Your task to perform on an android device: What is the news today? Image 0: 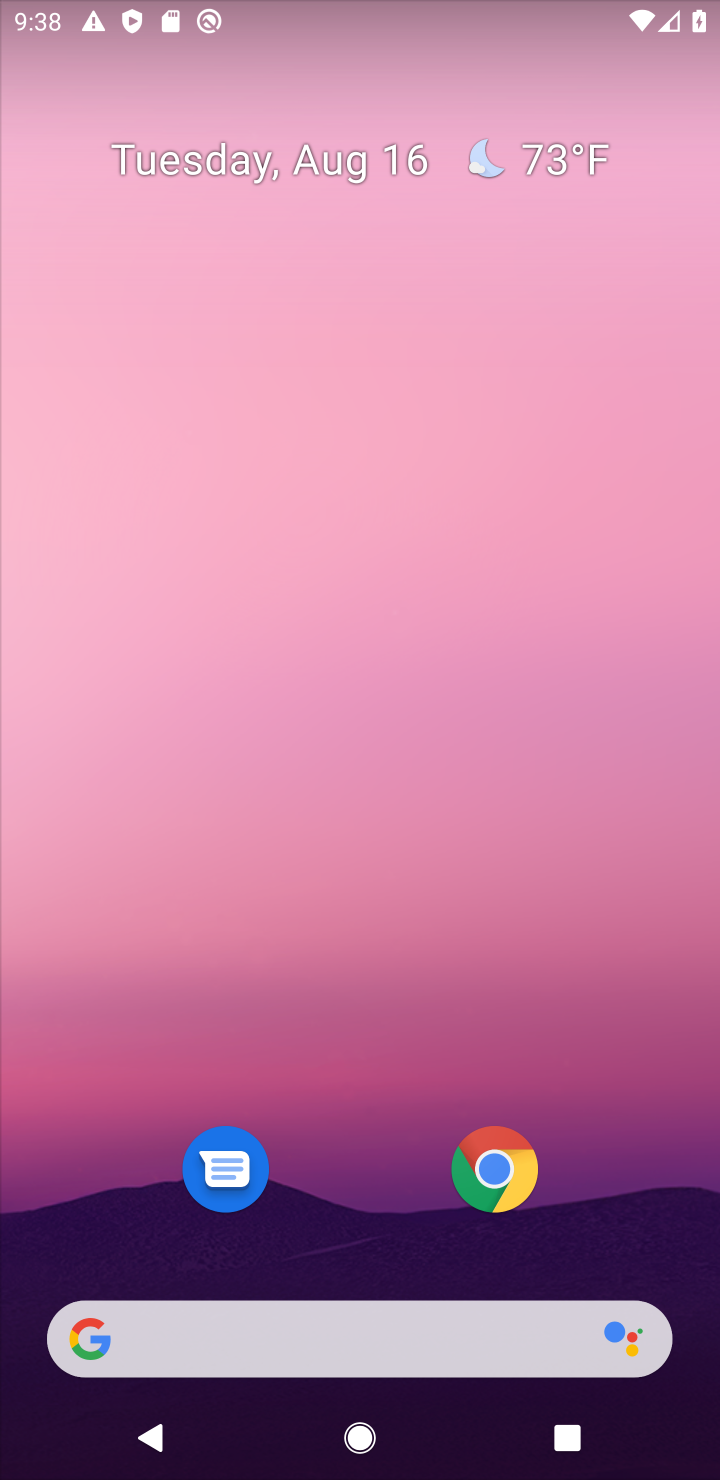
Step 0: click (327, 1314)
Your task to perform on an android device: What is the news today? Image 1: 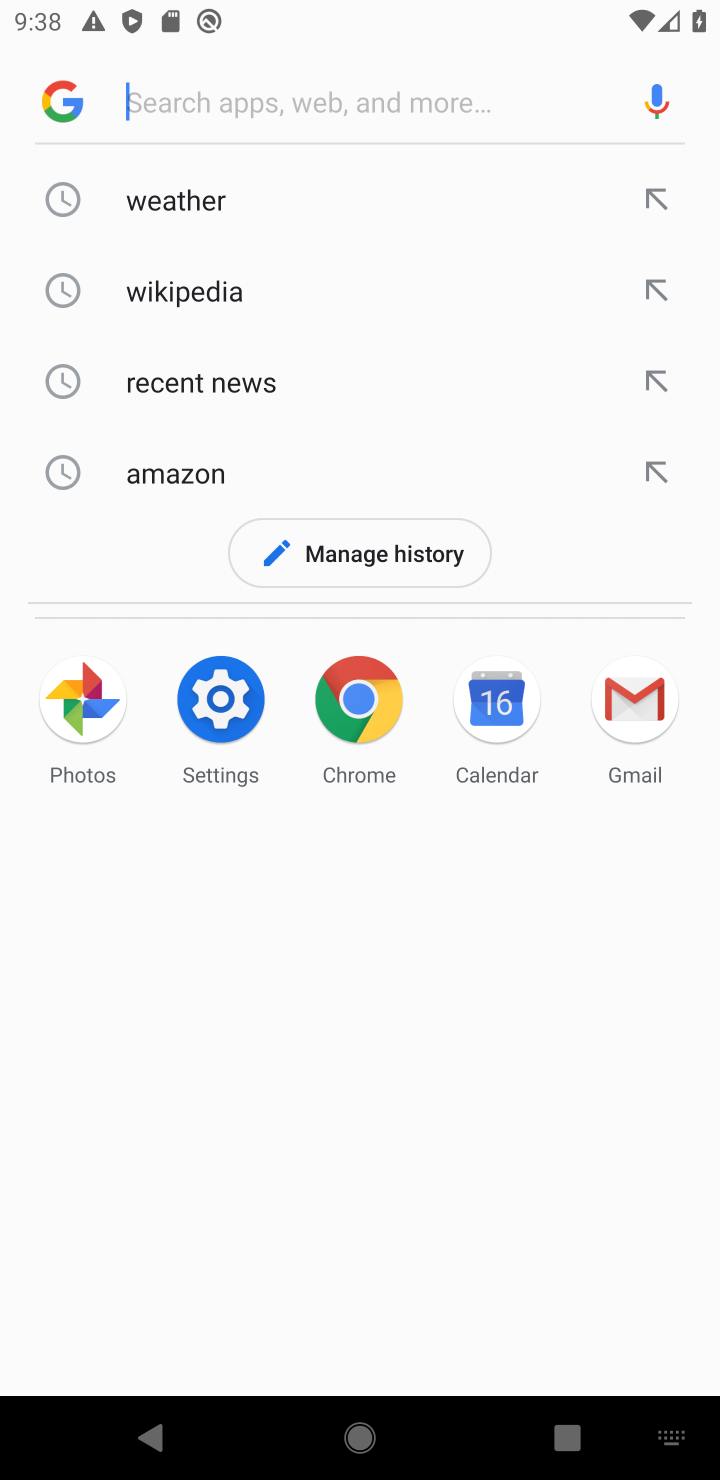
Step 1: type "news today"
Your task to perform on an android device: What is the news today? Image 2: 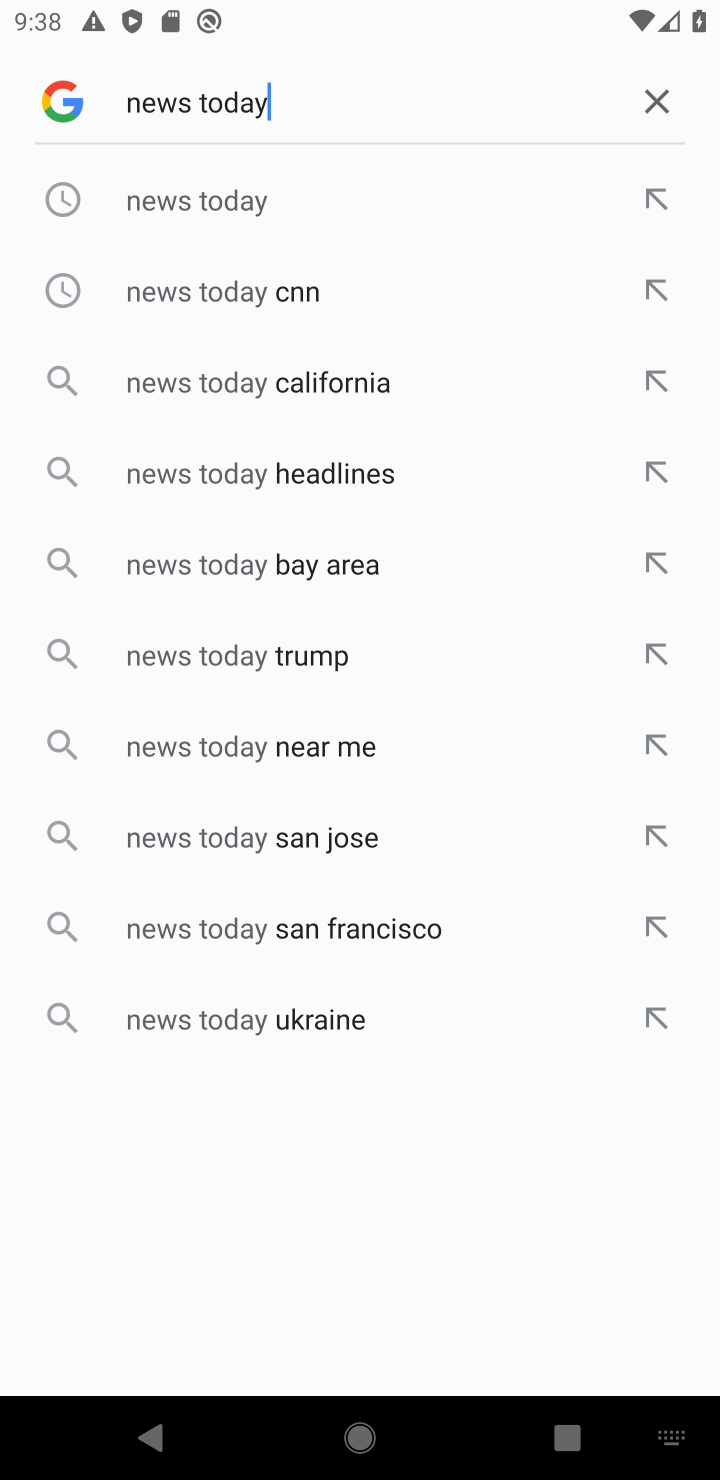
Step 2: click (241, 305)
Your task to perform on an android device: What is the news today? Image 3: 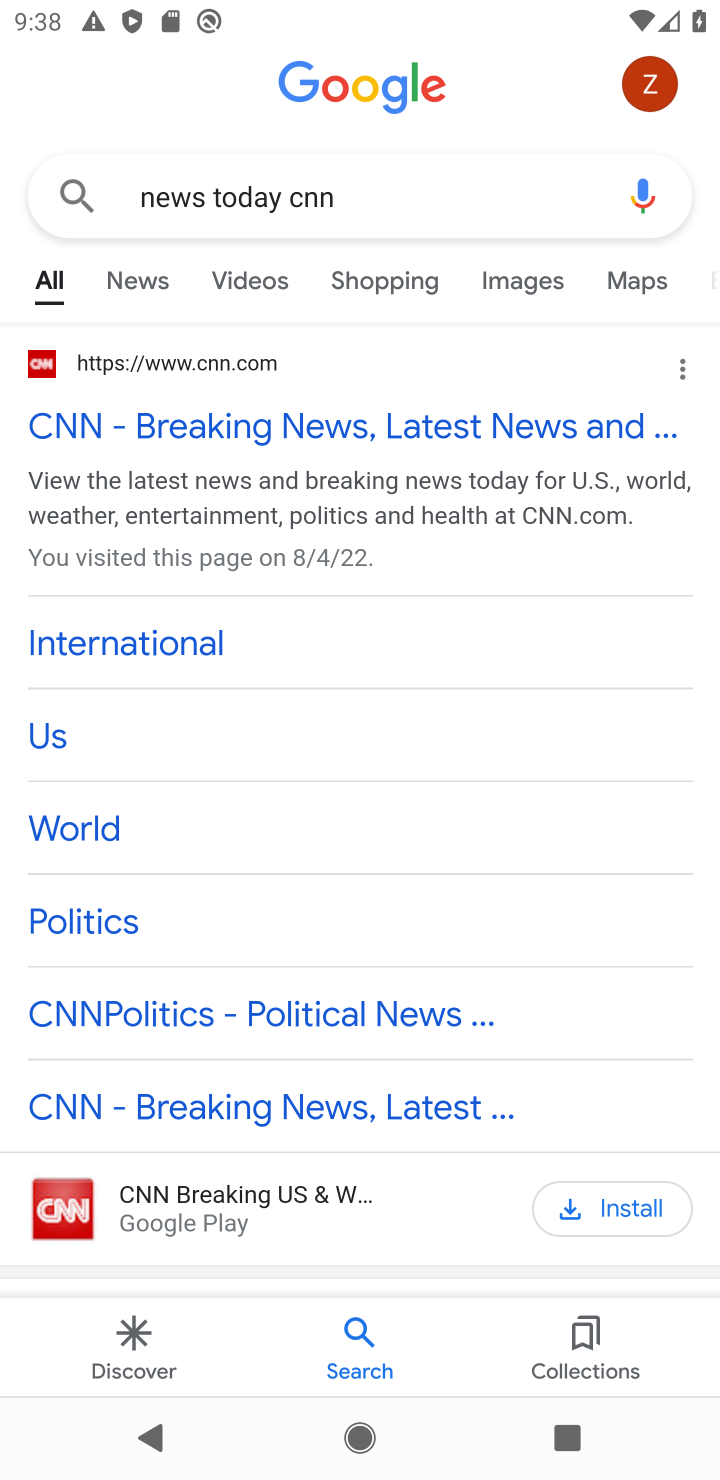
Step 3: task complete